Your task to perform on an android device: What's on my calendar tomorrow? Image 0: 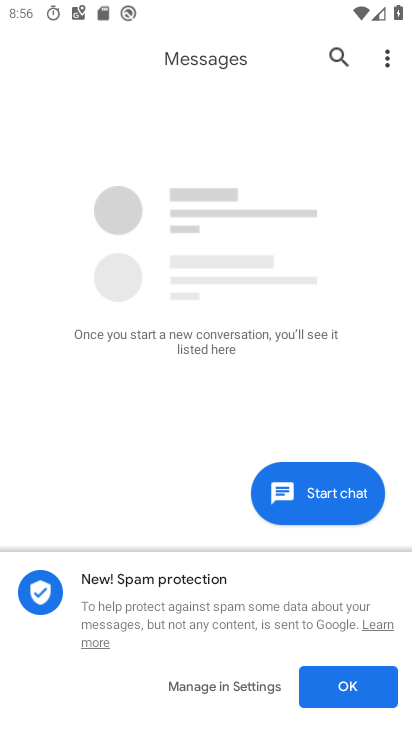
Step 0: press back button
Your task to perform on an android device: What's on my calendar tomorrow? Image 1: 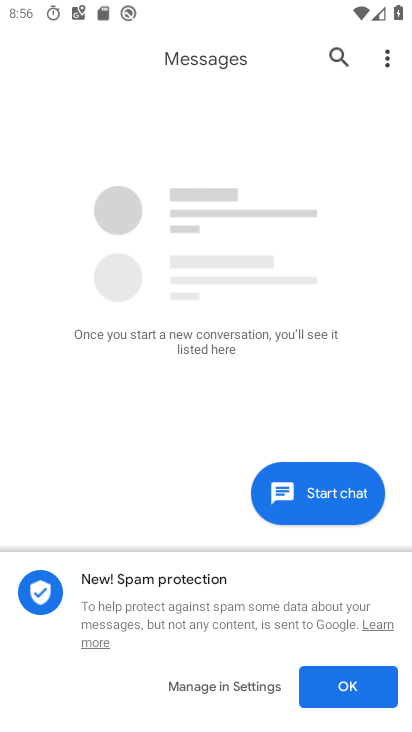
Step 1: press back button
Your task to perform on an android device: What's on my calendar tomorrow? Image 2: 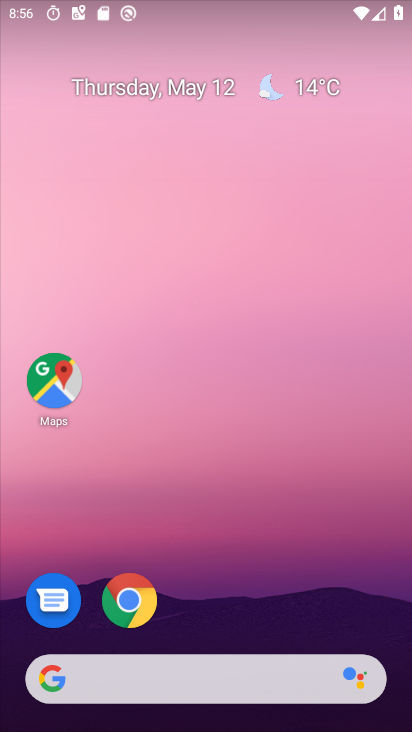
Step 2: drag from (246, 604) to (141, 5)
Your task to perform on an android device: What's on my calendar tomorrow? Image 3: 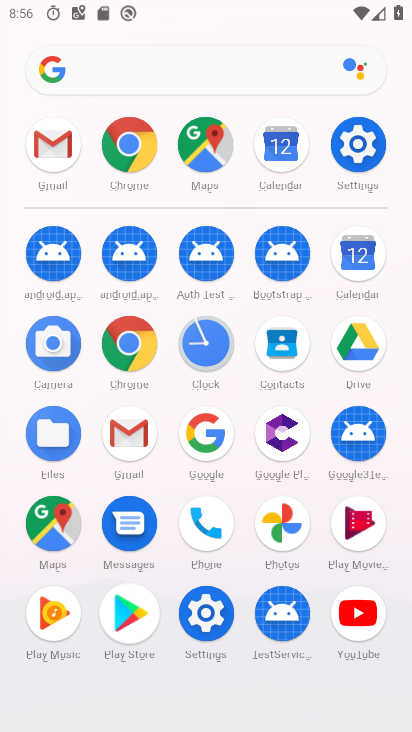
Step 3: click (358, 257)
Your task to perform on an android device: What's on my calendar tomorrow? Image 4: 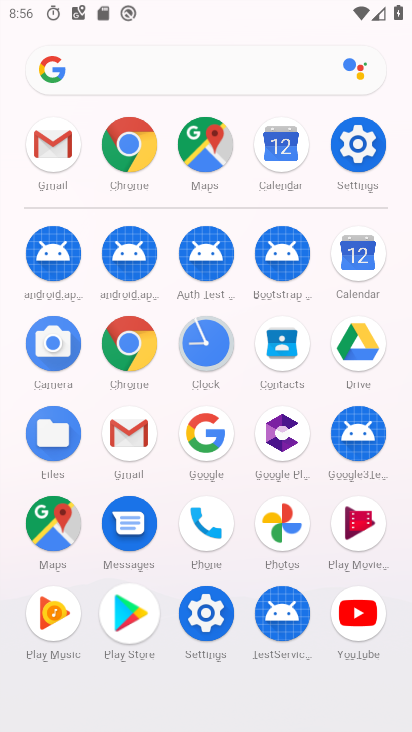
Step 4: click (358, 257)
Your task to perform on an android device: What's on my calendar tomorrow? Image 5: 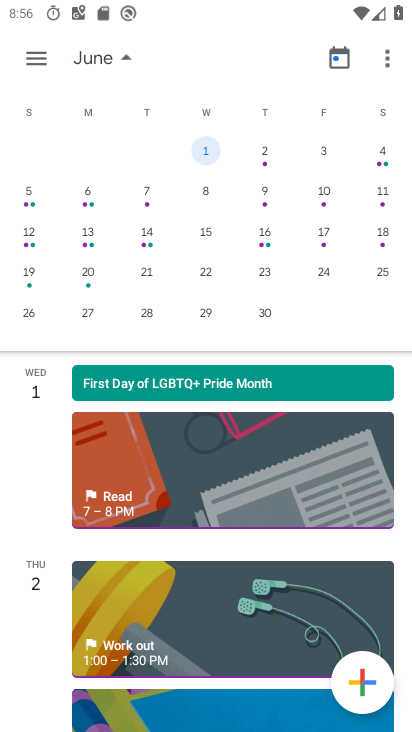
Step 5: drag from (55, 250) to (386, 251)
Your task to perform on an android device: What's on my calendar tomorrow? Image 6: 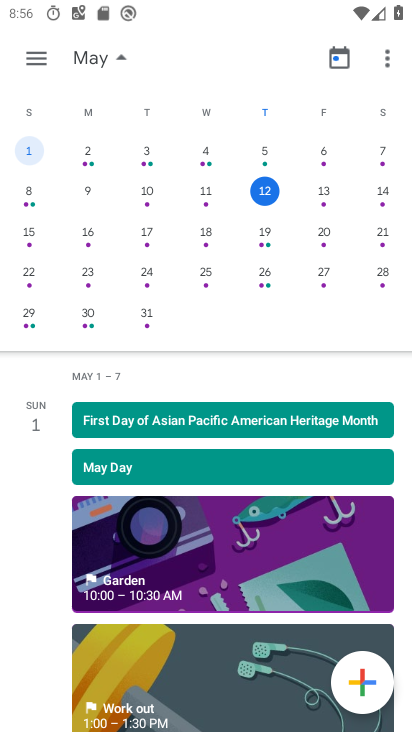
Step 6: drag from (124, 263) to (406, 297)
Your task to perform on an android device: What's on my calendar tomorrow? Image 7: 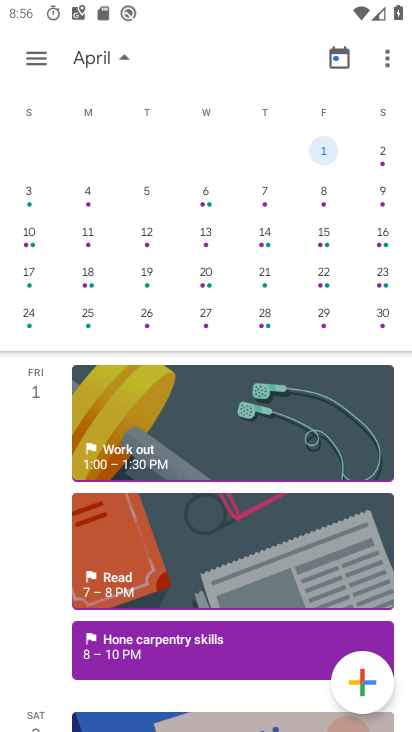
Step 7: drag from (301, 200) to (0, 218)
Your task to perform on an android device: What's on my calendar tomorrow? Image 8: 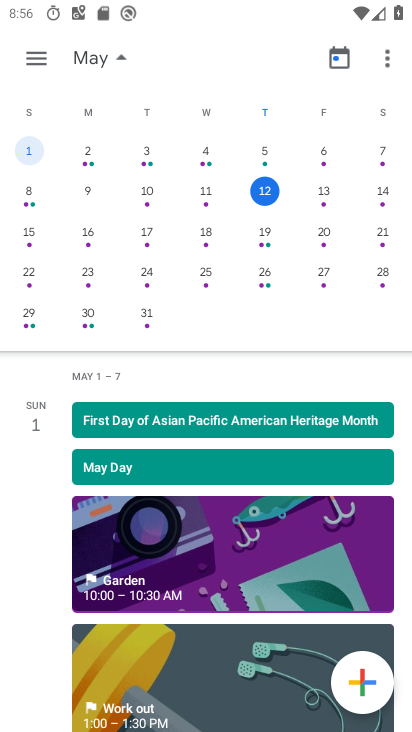
Step 8: drag from (343, 196) to (52, 235)
Your task to perform on an android device: What's on my calendar tomorrow? Image 9: 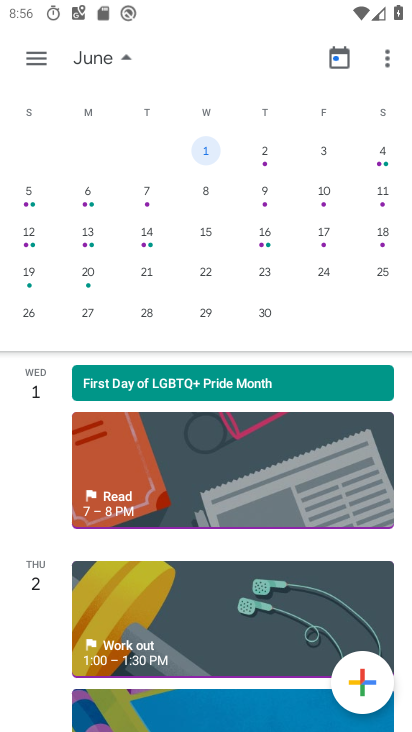
Step 9: drag from (60, 247) to (369, 283)
Your task to perform on an android device: What's on my calendar tomorrow? Image 10: 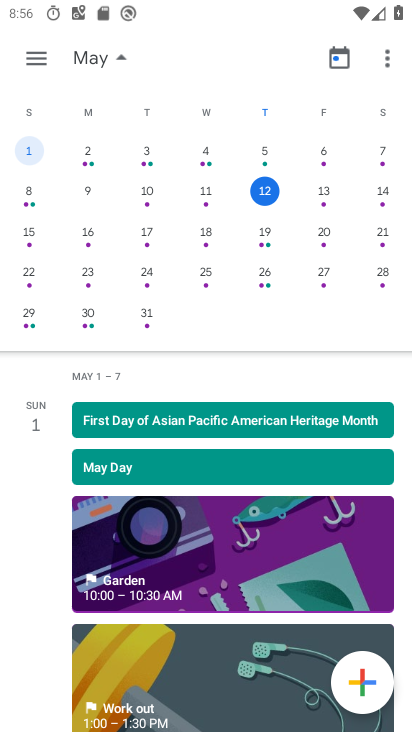
Step 10: click (384, 190)
Your task to perform on an android device: What's on my calendar tomorrow? Image 11: 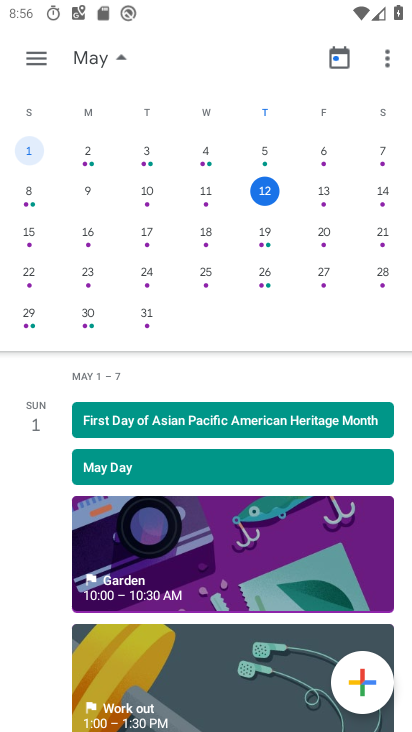
Step 11: click (384, 190)
Your task to perform on an android device: What's on my calendar tomorrow? Image 12: 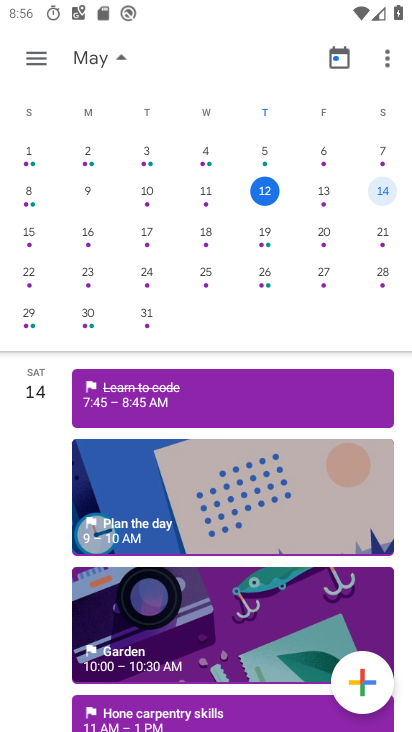
Step 12: click (108, 444)
Your task to perform on an android device: What's on my calendar tomorrow? Image 13: 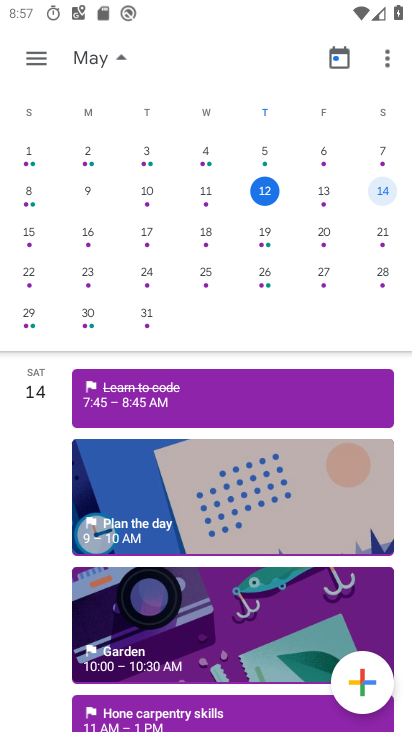
Step 13: click (206, 509)
Your task to perform on an android device: What's on my calendar tomorrow? Image 14: 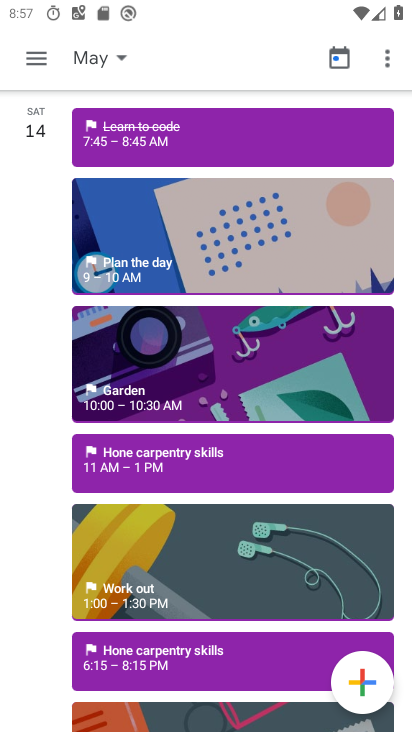
Step 14: task complete